Your task to perform on an android device: toggle javascript in the chrome app Image 0: 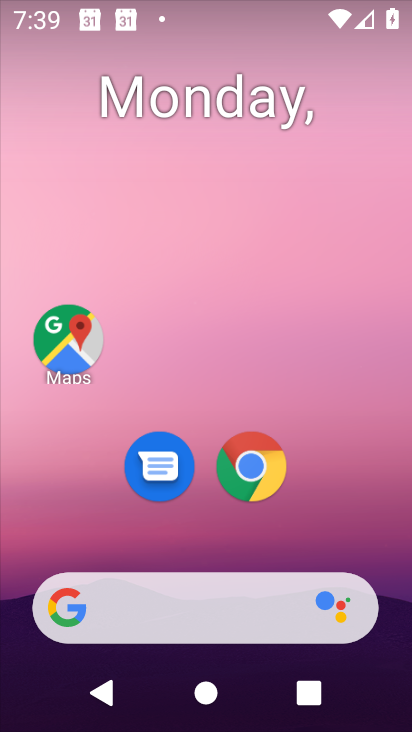
Step 0: click (252, 482)
Your task to perform on an android device: toggle javascript in the chrome app Image 1: 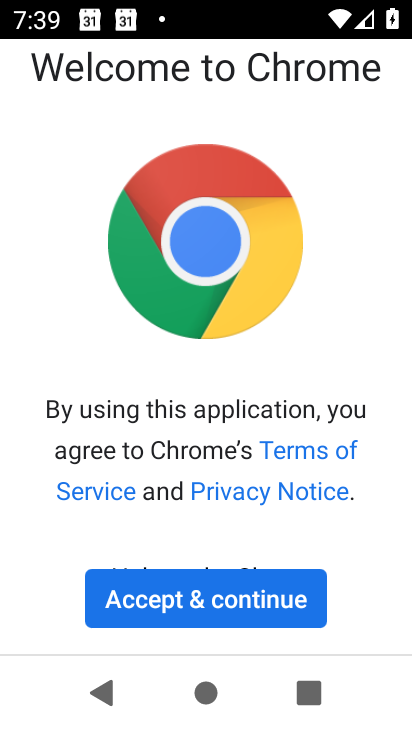
Step 1: click (243, 608)
Your task to perform on an android device: toggle javascript in the chrome app Image 2: 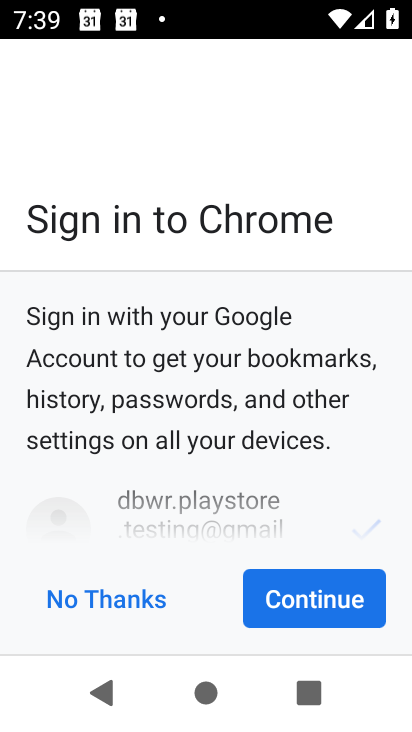
Step 2: click (290, 582)
Your task to perform on an android device: toggle javascript in the chrome app Image 3: 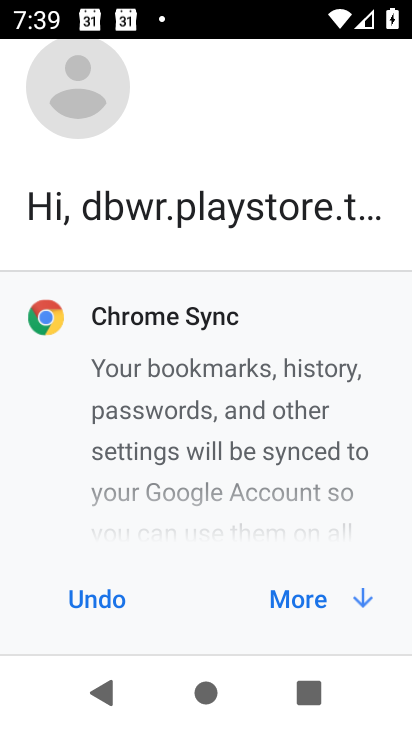
Step 3: click (318, 608)
Your task to perform on an android device: toggle javascript in the chrome app Image 4: 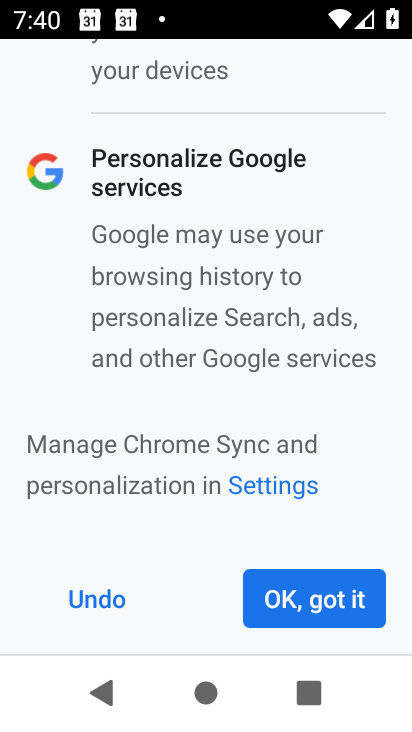
Step 4: click (318, 602)
Your task to perform on an android device: toggle javascript in the chrome app Image 5: 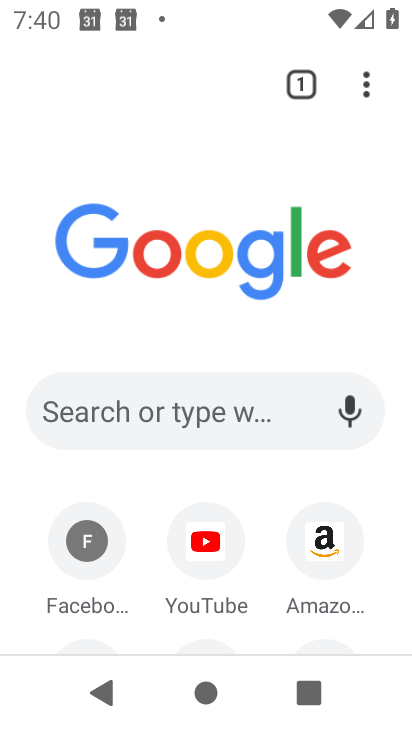
Step 5: click (374, 78)
Your task to perform on an android device: toggle javascript in the chrome app Image 6: 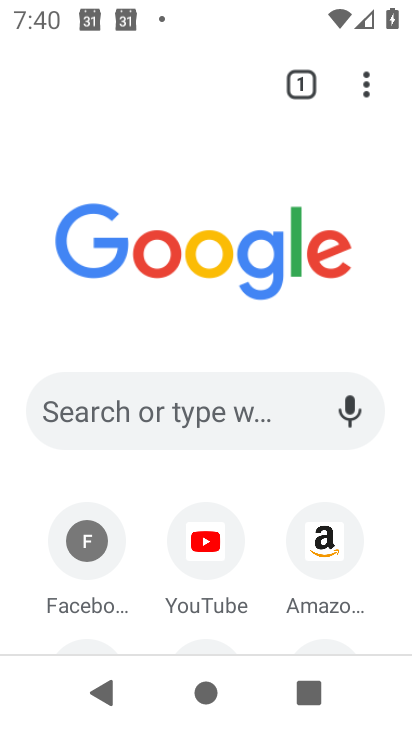
Step 6: click (368, 79)
Your task to perform on an android device: toggle javascript in the chrome app Image 7: 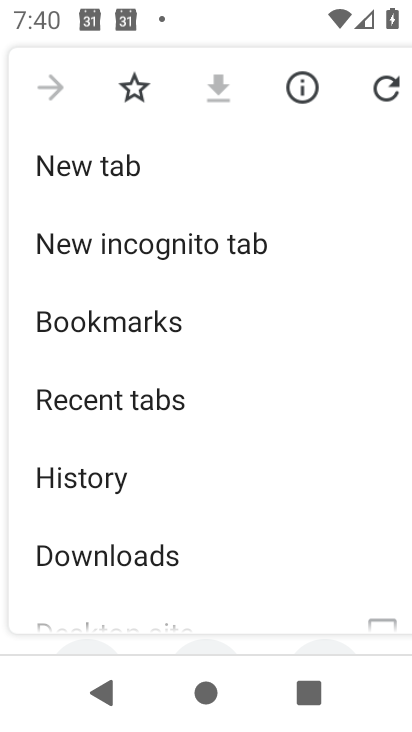
Step 7: drag from (138, 565) to (216, 91)
Your task to perform on an android device: toggle javascript in the chrome app Image 8: 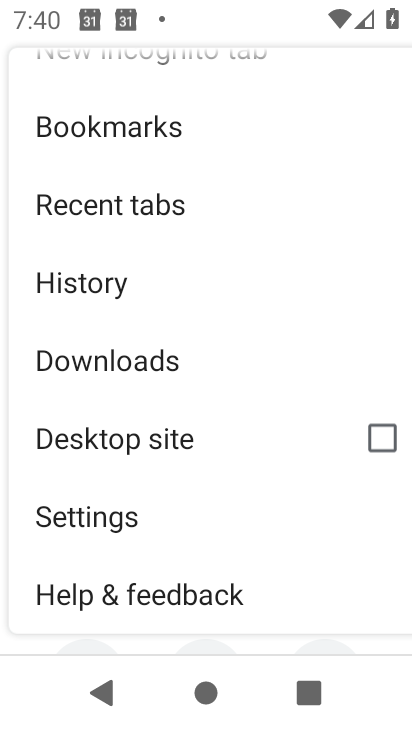
Step 8: click (75, 508)
Your task to perform on an android device: toggle javascript in the chrome app Image 9: 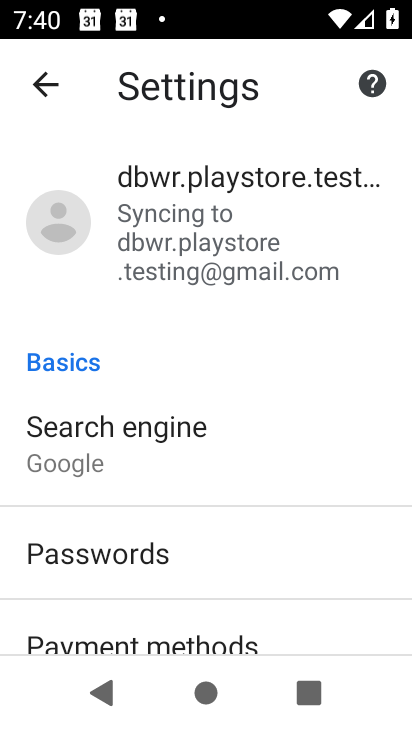
Step 9: drag from (248, 621) to (232, 350)
Your task to perform on an android device: toggle javascript in the chrome app Image 10: 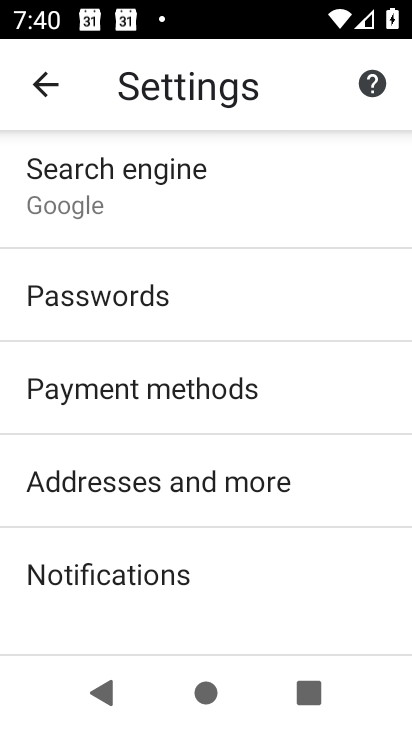
Step 10: drag from (293, 594) to (227, 194)
Your task to perform on an android device: toggle javascript in the chrome app Image 11: 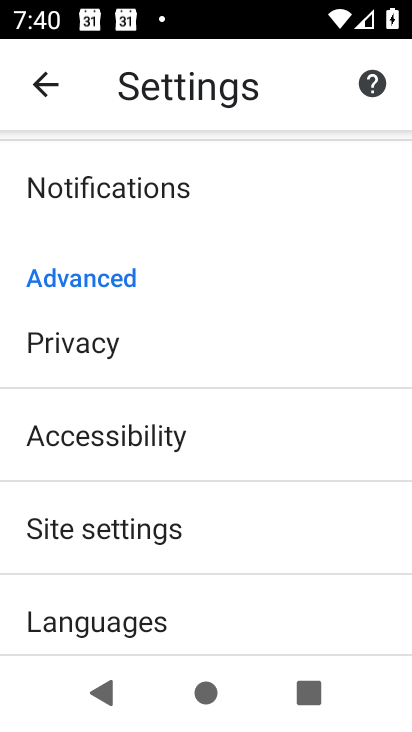
Step 11: drag from (158, 488) to (148, 222)
Your task to perform on an android device: toggle javascript in the chrome app Image 12: 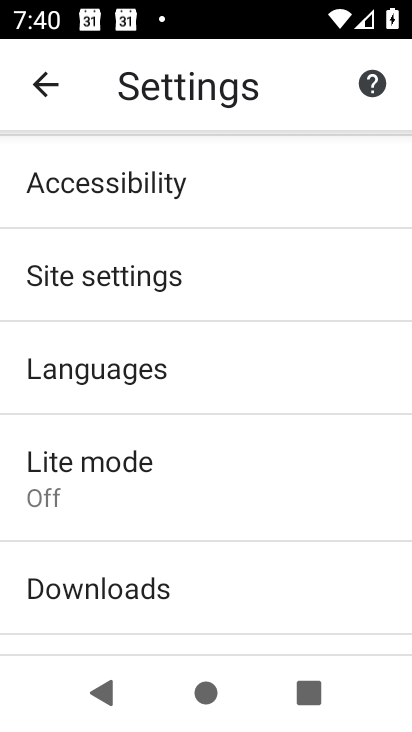
Step 12: click (134, 294)
Your task to perform on an android device: toggle javascript in the chrome app Image 13: 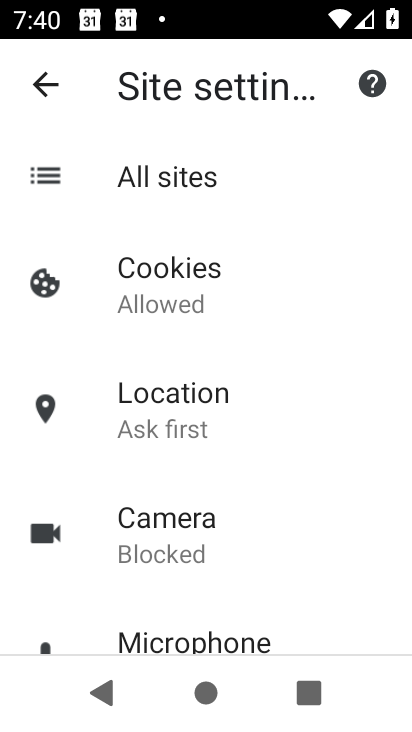
Step 13: drag from (300, 533) to (284, 26)
Your task to perform on an android device: toggle javascript in the chrome app Image 14: 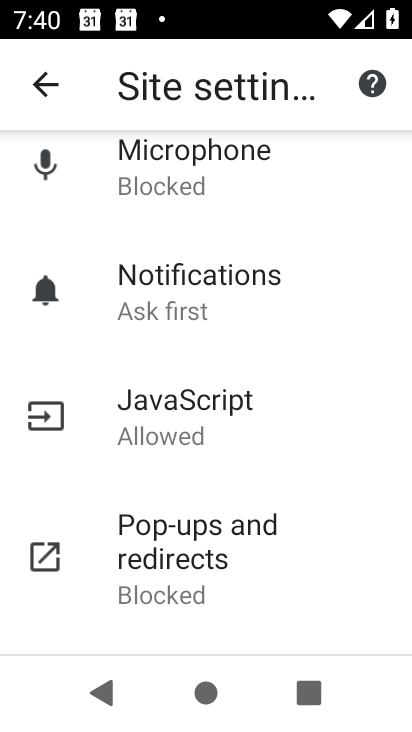
Step 14: click (185, 392)
Your task to perform on an android device: toggle javascript in the chrome app Image 15: 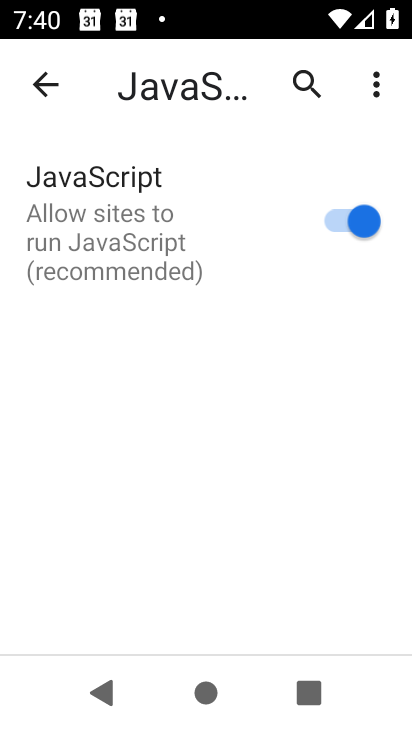
Step 15: click (359, 234)
Your task to perform on an android device: toggle javascript in the chrome app Image 16: 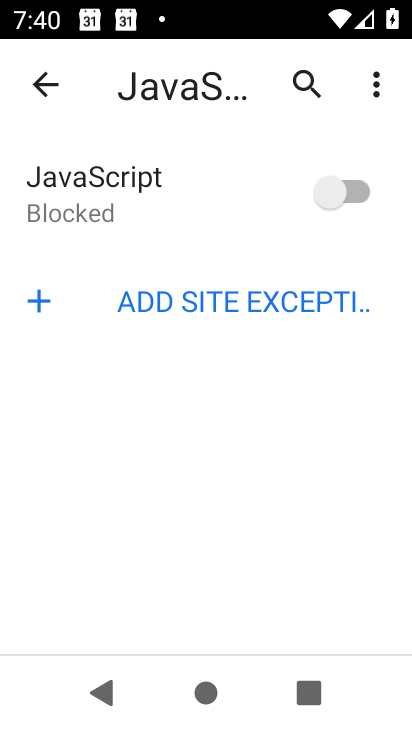
Step 16: task complete